Your task to perform on an android device: Go to accessibility settings Image 0: 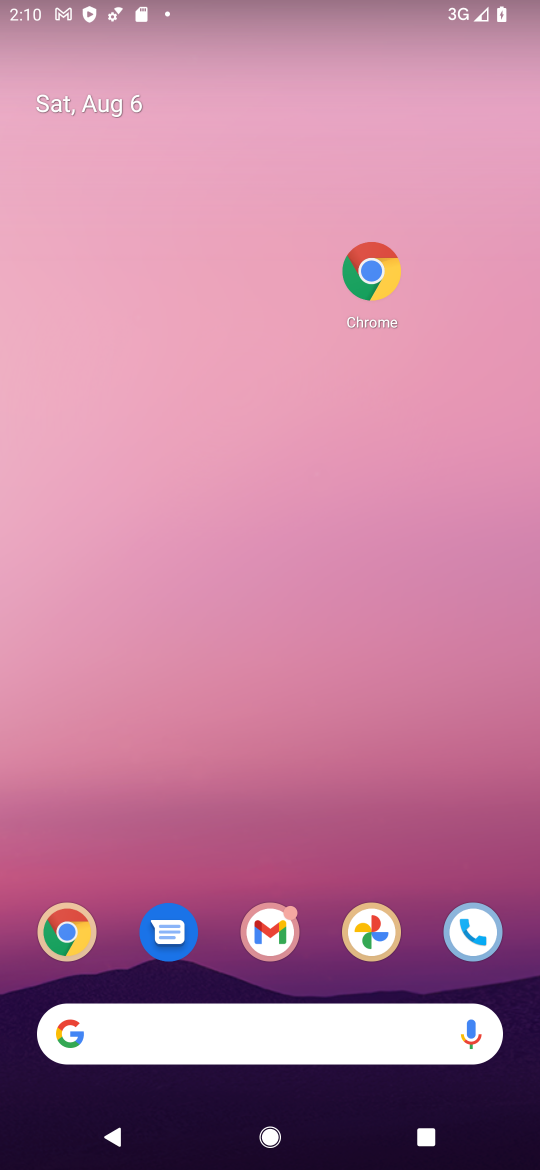
Step 0: drag from (325, 969) to (453, 56)
Your task to perform on an android device: Go to accessibility settings Image 1: 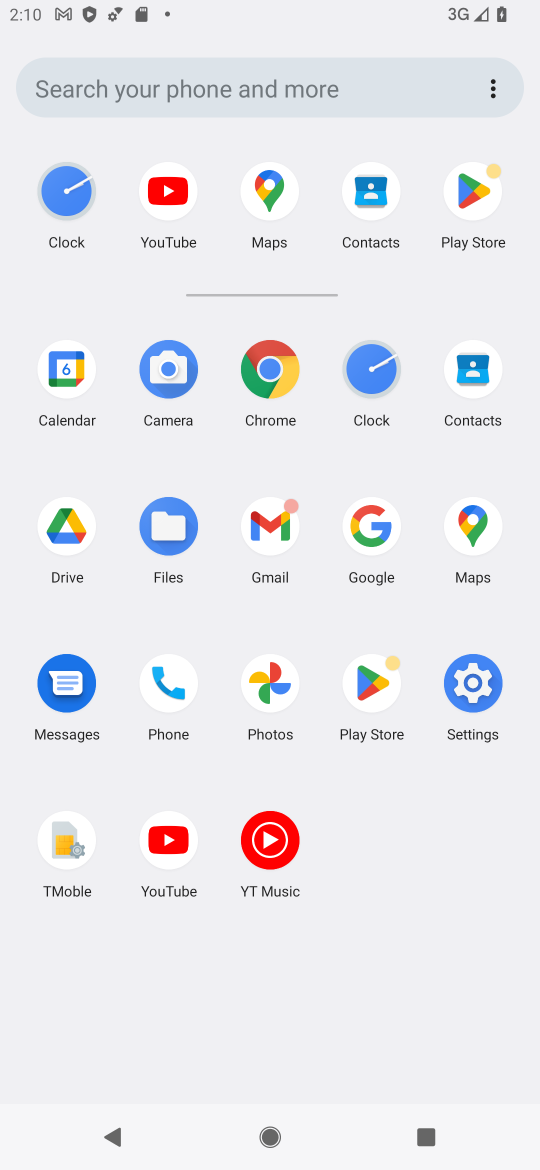
Step 1: click (472, 659)
Your task to perform on an android device: Go to accessibility settings Image 2: 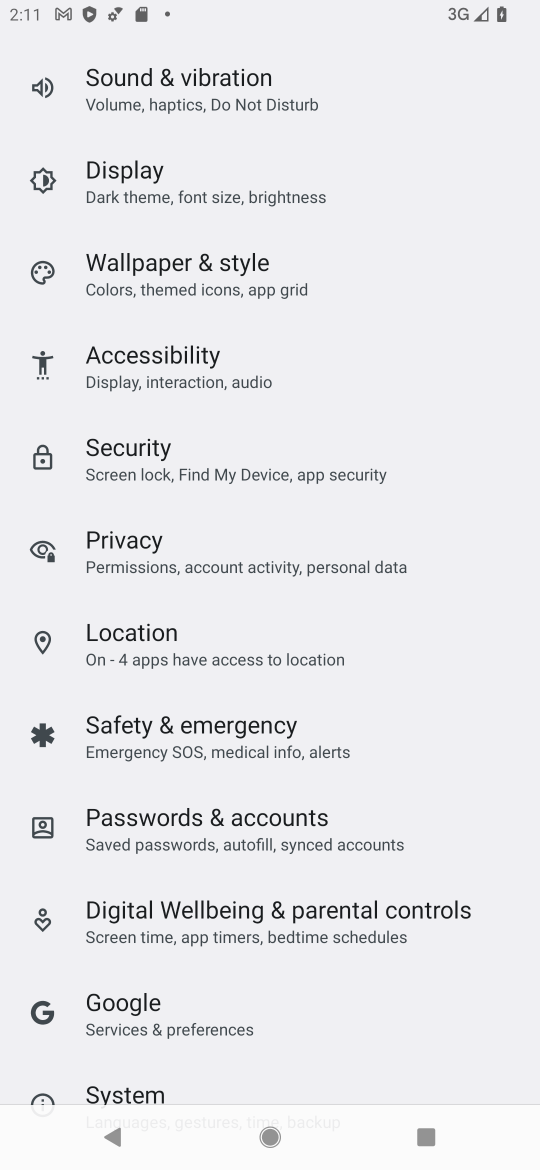
Step 2: click (115, 361)
Your task to perform on an android device: Go to accessibility settings Image 3: 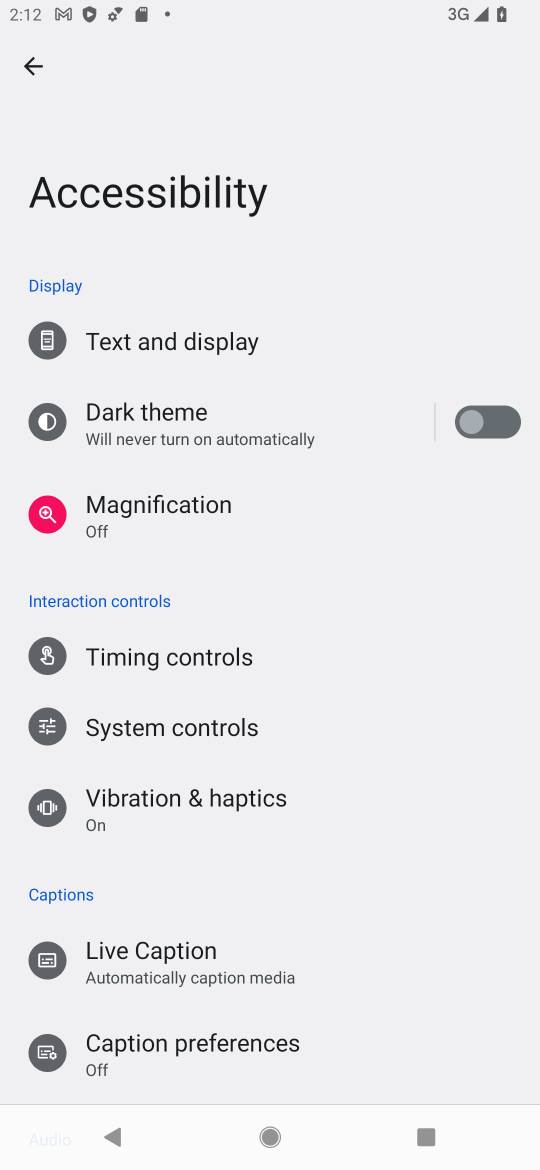
Step 3: task complete